Your task to perform on an android device: Go to CNN.com Image 0: 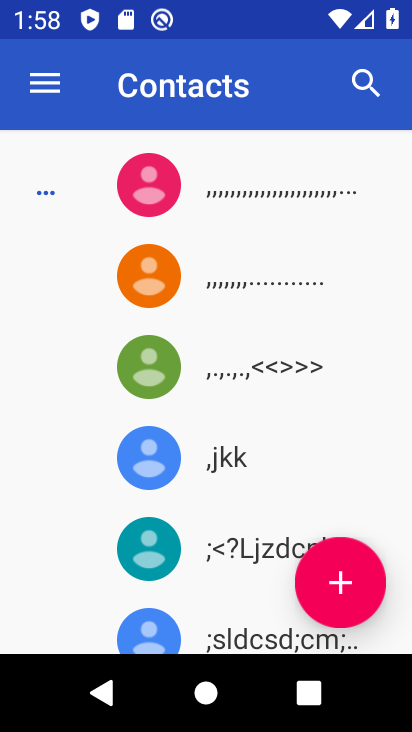
Step 0: press back button
Your task to perform on an android device: Go to CNN.com Image 1: 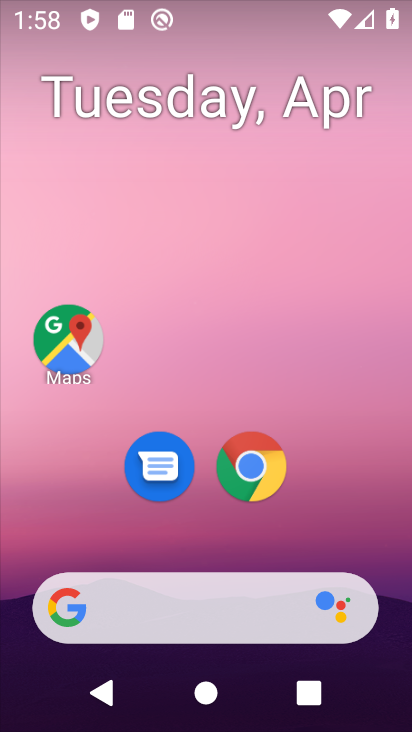
Step 1: click (254, 469)
Your task to perform on an android device: Go to CNN.com Image 2: 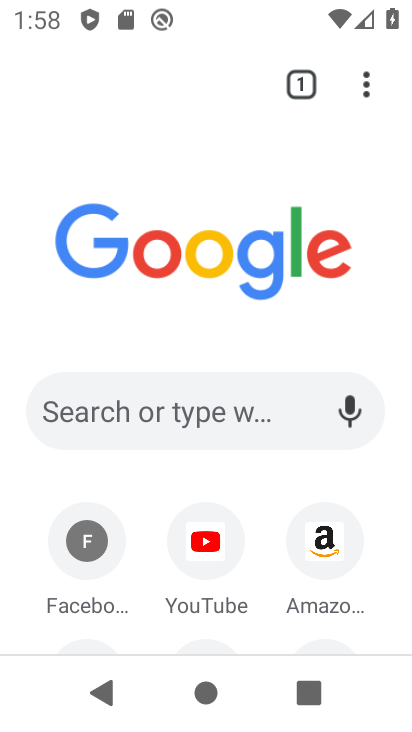
Step 2: click (217, 414)
Your task to perform on an android device: Go to CNN.com Image 3: 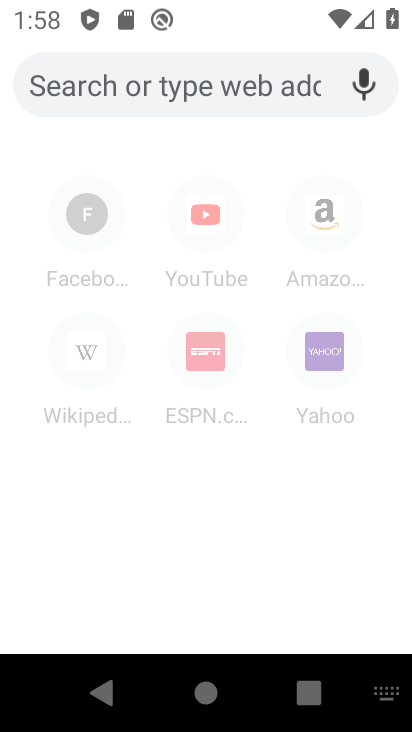
Step 3: type " CNN.com"
Your task to perform on an android device: Go to CNN.com Image 4: 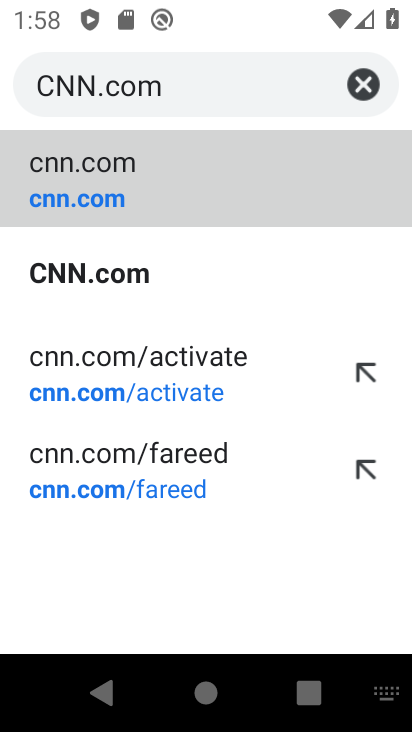
Step 4: click (220, 191)
Your task to perform on an android device: Go to CNN.com Image 5: 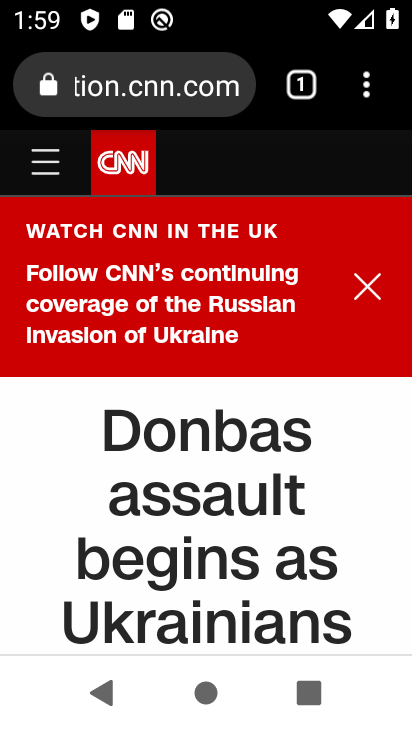
Step 5: task complete